Your task to perform on an android device: Show me the alarms in the clock app Image 0: 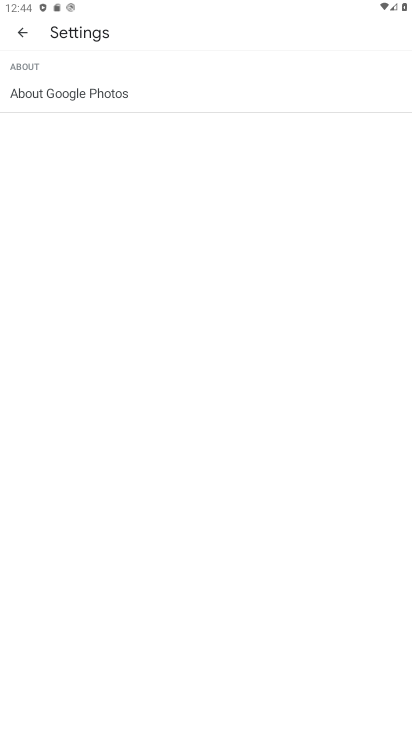
Step 0: press home button
Your task to perform on an android device: Show me the alarms in the clock app Image 1: 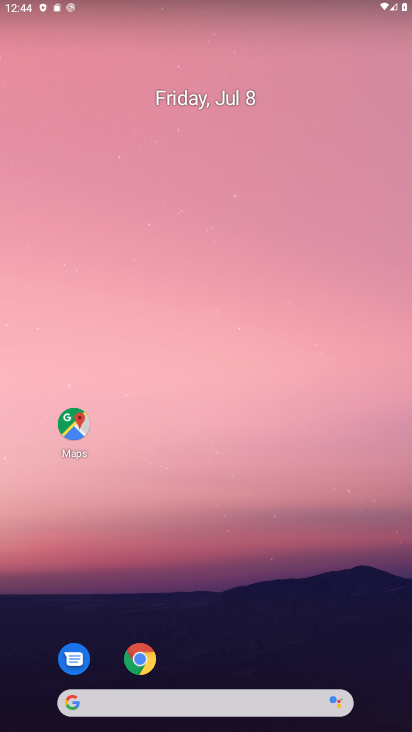
Step 1: drag from (260, 632) to (274, 53)
Your task to perform on an android device: Show me the alarms in the clock app Image 2: 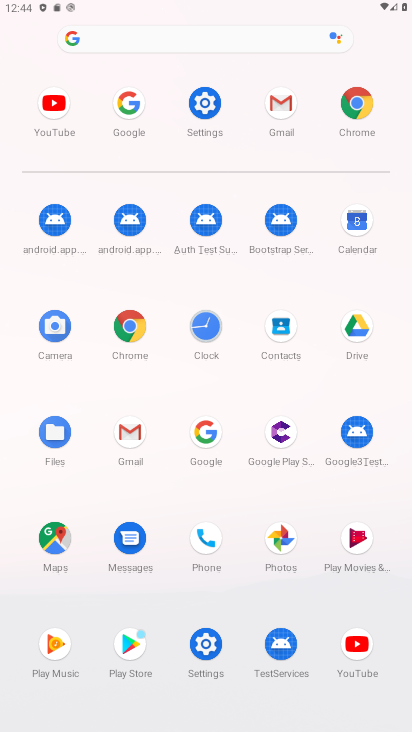
Step 2: click (209, 337)
Your task to perform on an android device: Show me the alarms in the clock app Image 3: 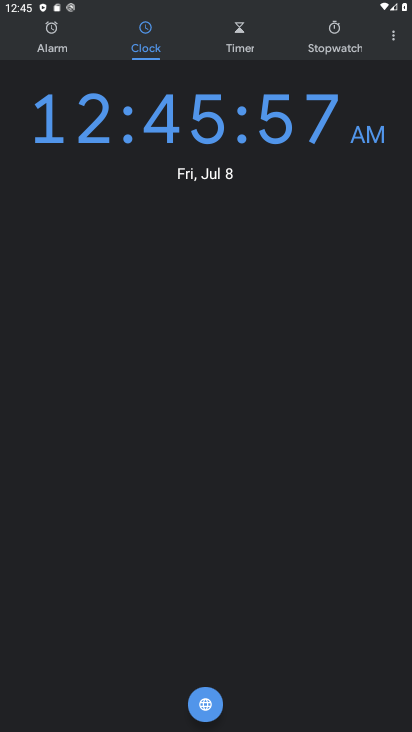
Step 3: click (397, 43)
Your task to perform on an android device: Show me the alarms in the clock app Image 4: 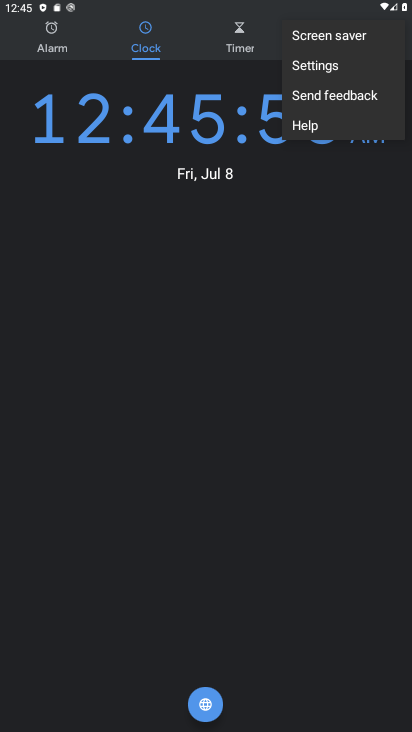
Step 4: click (224, 296)
Your task to perform on an android device: Show me the alarms in the clock app Image 5: 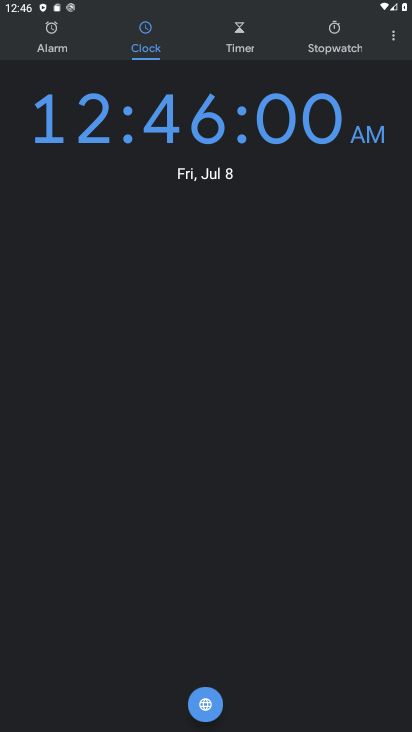
Step 5: click (48, 53)
Your task to perform on an android device: Show me the alarms in the clock app Image 6: 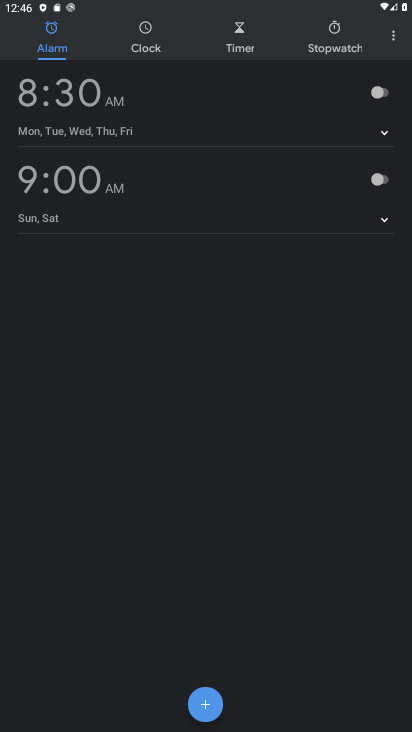
Step 6: task complete